Your task to perform on an android device: Go to Maps Image 0: 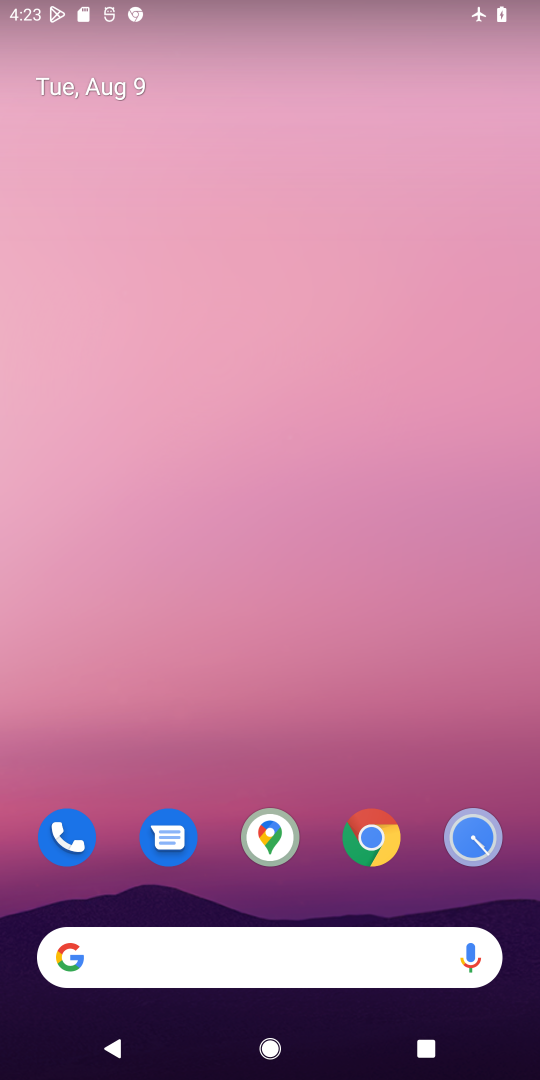
Step 0: drag from (231, 653) to (251, 270)
Your task to perform on an android device: Go to Maps Image 1: 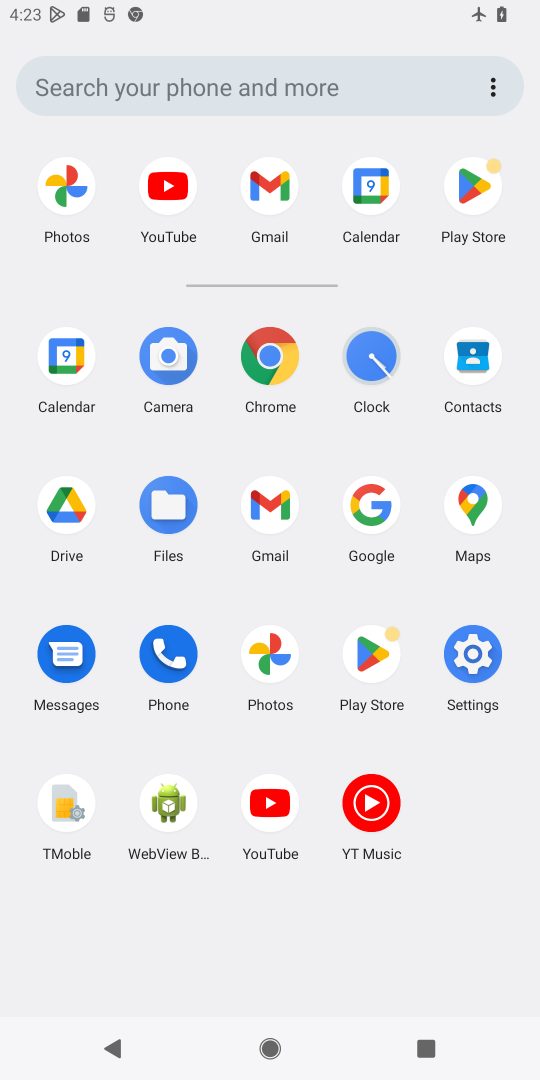
Step 1: click (471, 483)
Your task to perform on an android device: Go to Maps Image 2: 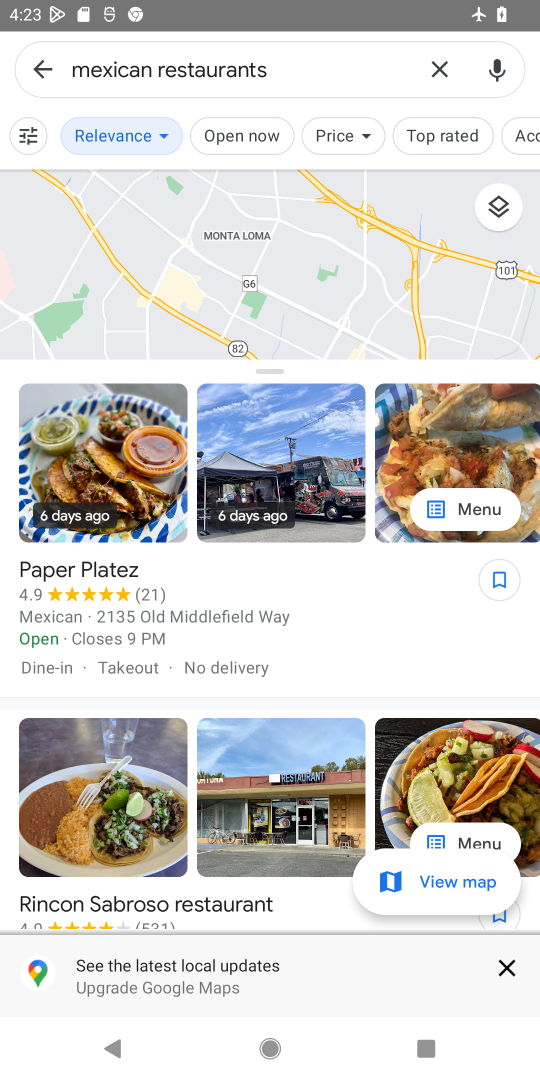
Step 2: task complete